Your task to perform on an android device: Go to sound settings Image 0: 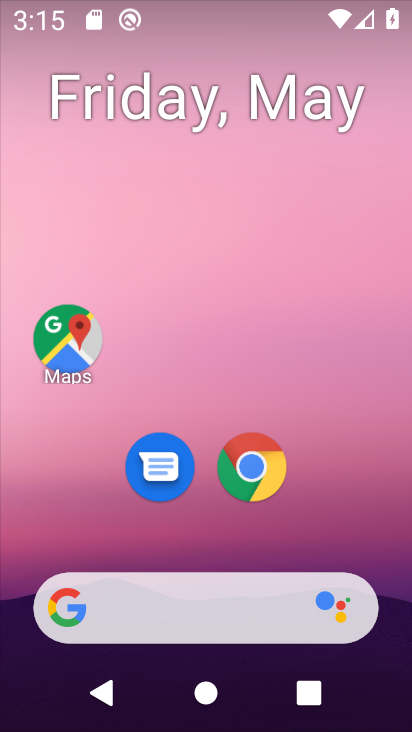
Step 0: drag from (316, 204) to (283, 50)
Your task to perform on an android device: Go to sound settings Image 1: 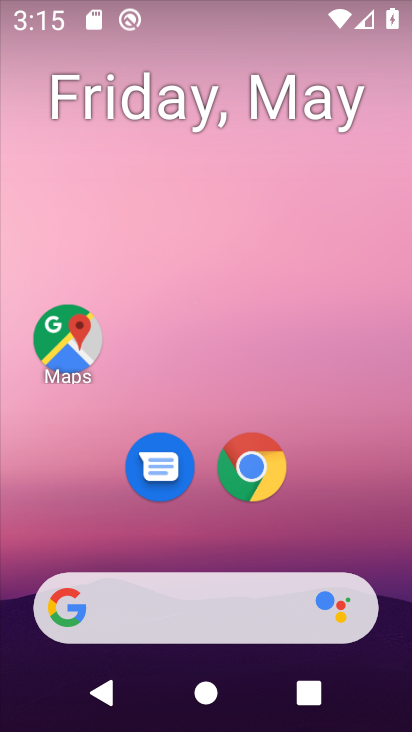
Step 1: drag from (335, 446) to (228, 3)
Your task to perform on an android device: Go to sound settings Image 2: 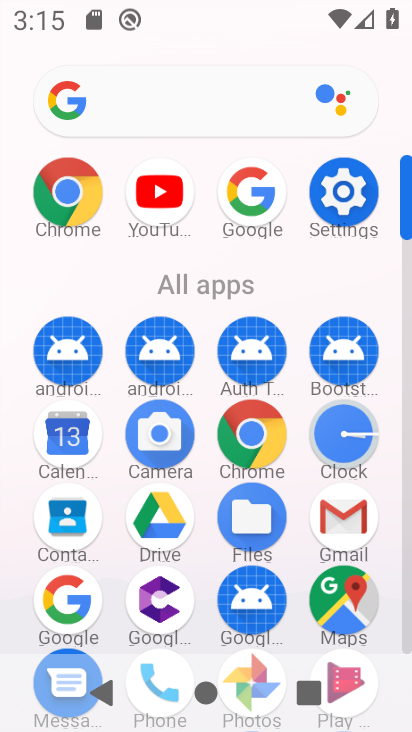
Step 2: click (353, 183)
Your task to perform on an android device: Go to sound settings Image 3: 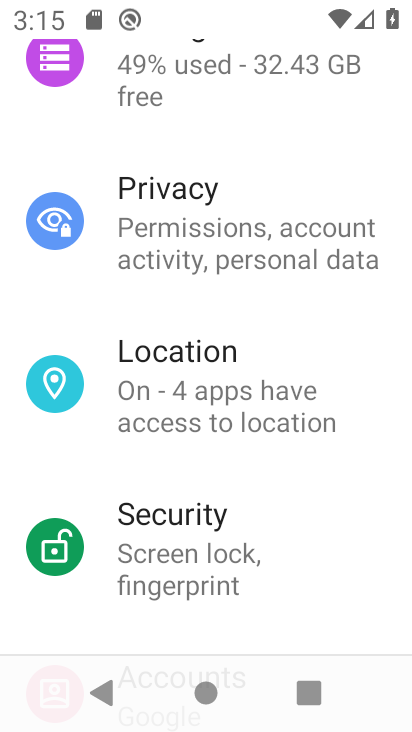
Step 3: drag from (274, 530) to (227, 164)
Your task to perform on an android device: Go to sound settings Image 4: 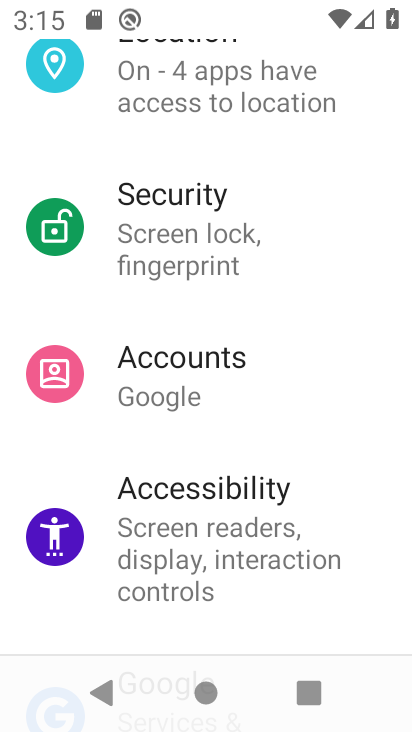
Step 4: drag from (256, 460) to (244, 115)
Your task to perform on an android device: Go to sound settings Image 5: 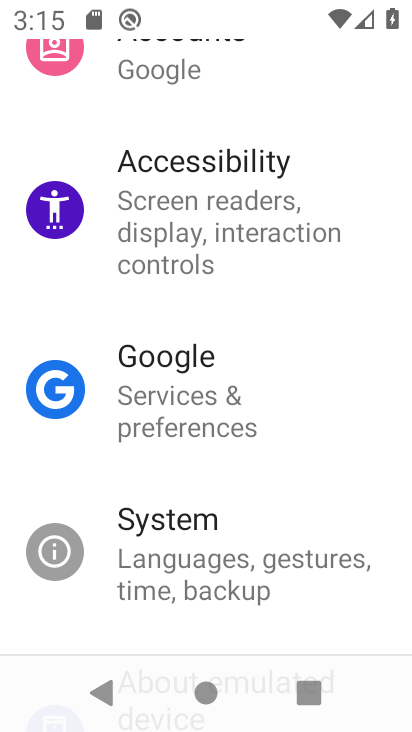
Step 5: drag from (236, 448) to (239, 701)
Your task to perform on an android device: Go to sound settings Image 6: 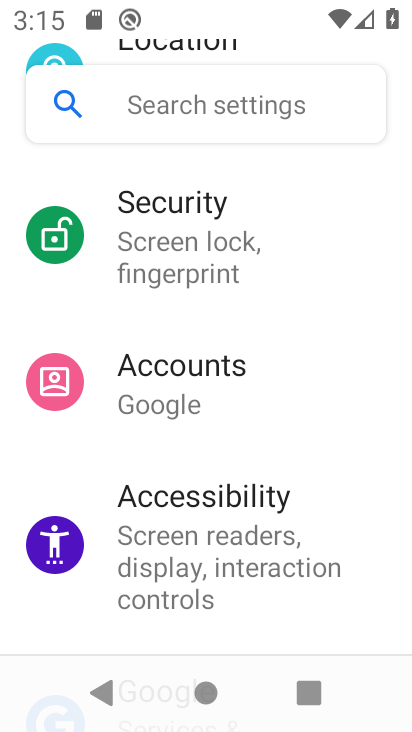
Step 6: drag from (245, 136) to (225, 681)
Your task to perform on an android device: Go to sound settings Image 7: 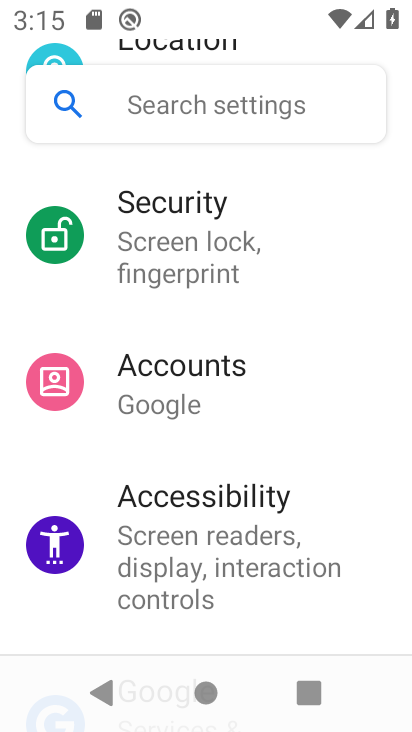
Step 7: drag from (218, 162) to (240, 656)
Your task to perform on an android device: Go to sound settings Image 8: 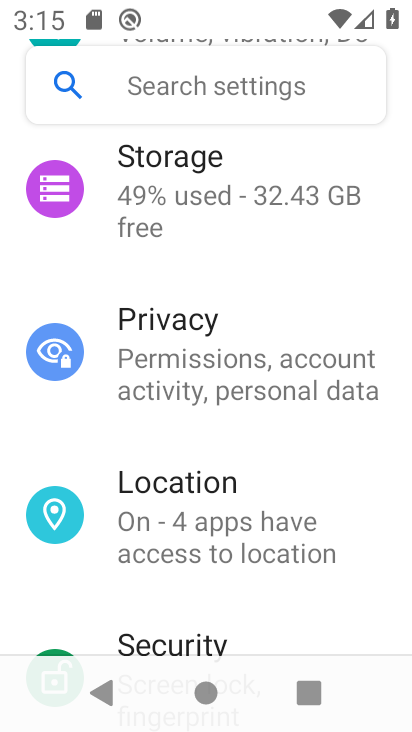
Step 8: drag from (216, 240) to (258, 643)
Your task to perform on an android device: Go to sound settings Image 9: 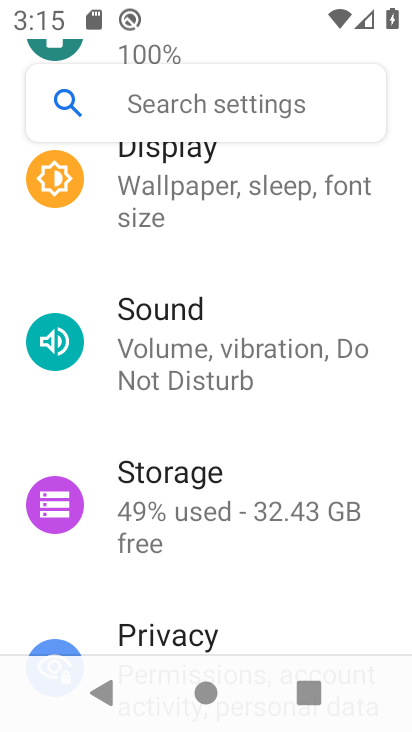
Step 9: click (213, 338)
Your task to perform on an android device: Go to sound settings Image 10: 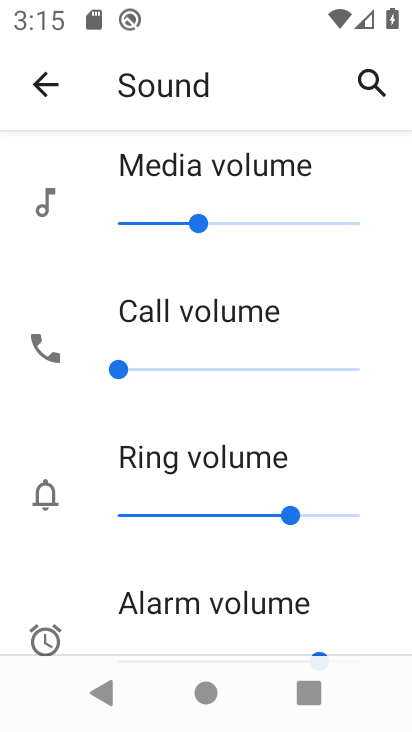
Step 10: task complete